Your task to perform on an android device: uninstall "Clock" Image 0: 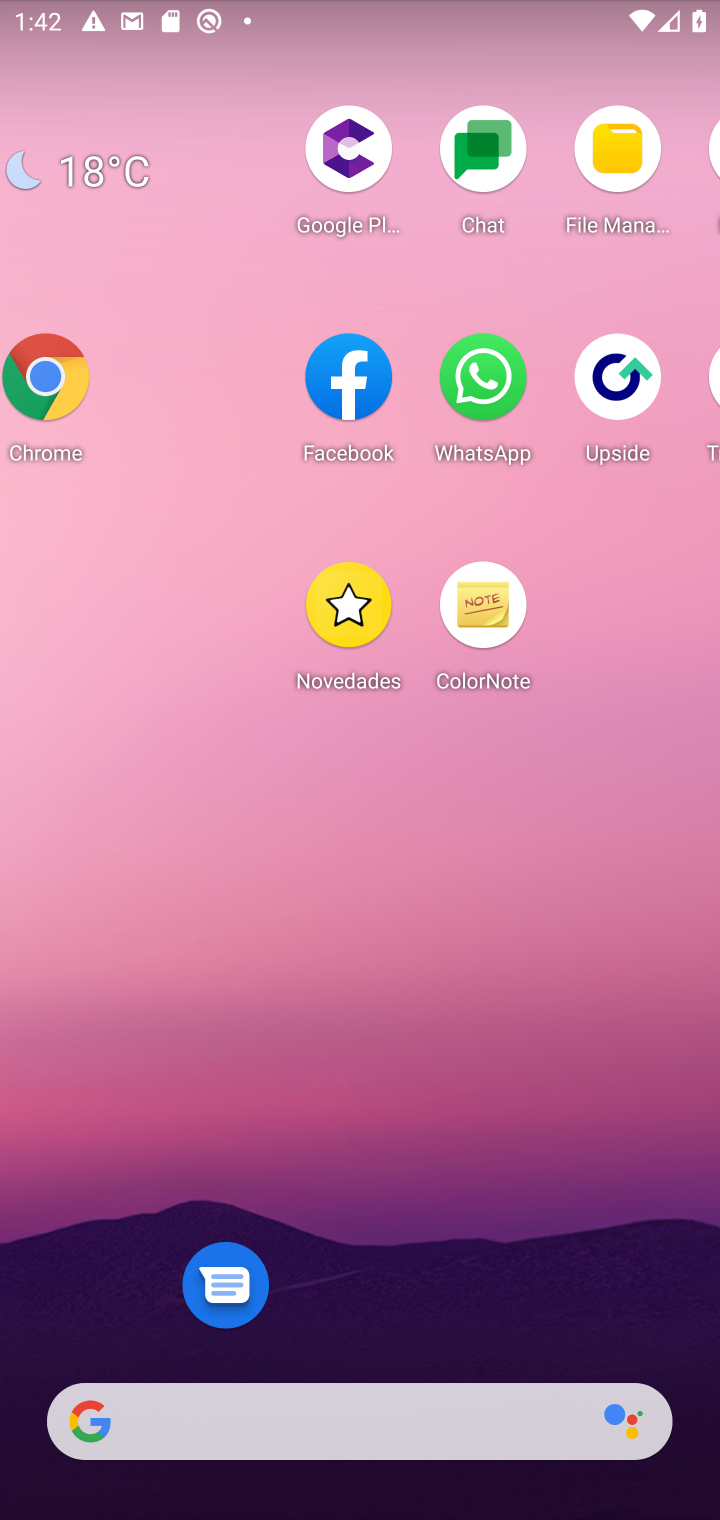
Step 0: press home button
Your task to perform on an android device: uninstall "Clock" Image 1: 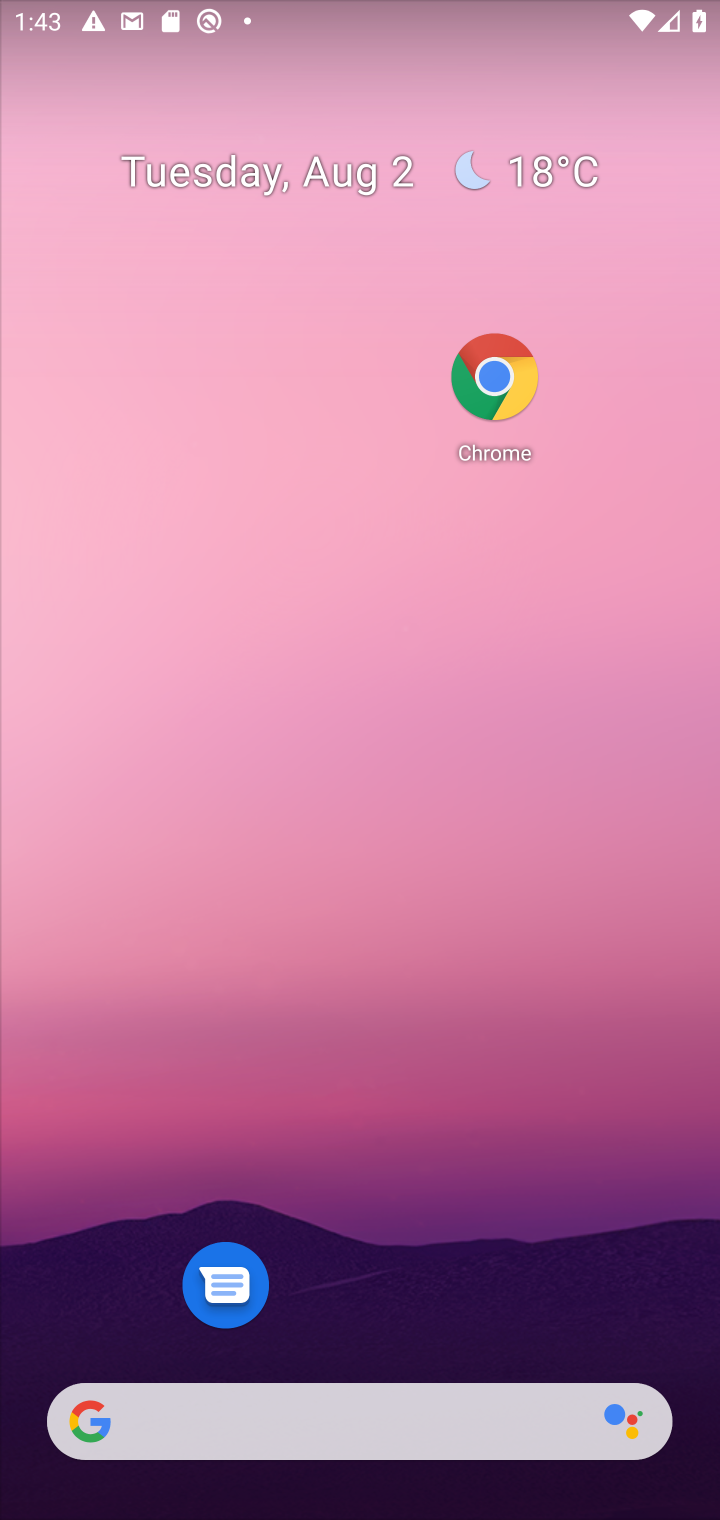
Step 1: drag from (348, 1303) to (345, 267)
Your task to perform on an android device: uninstall "Clock" Image 2: 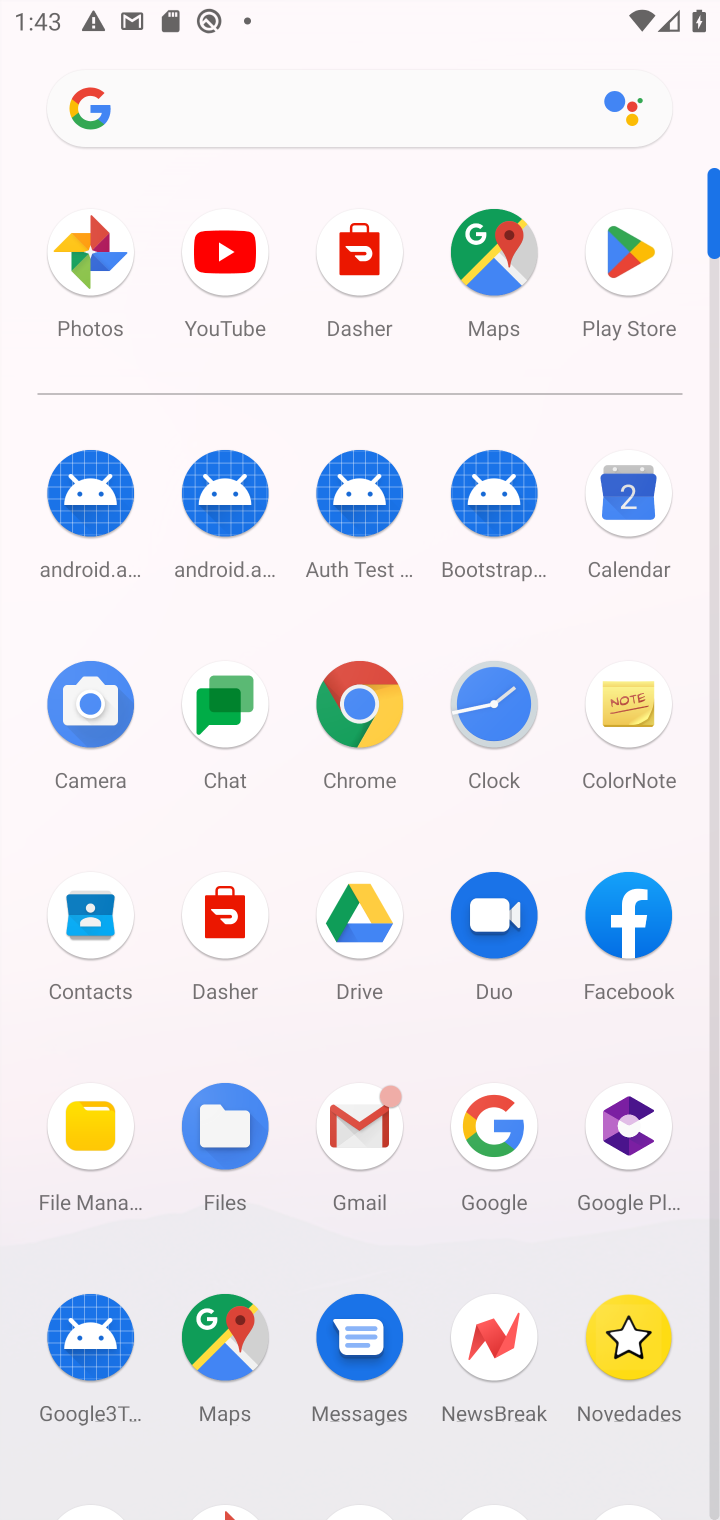
Step 2: click (624, 274)
Your task to perform on an android device: uninstall "Clock" Image 3: 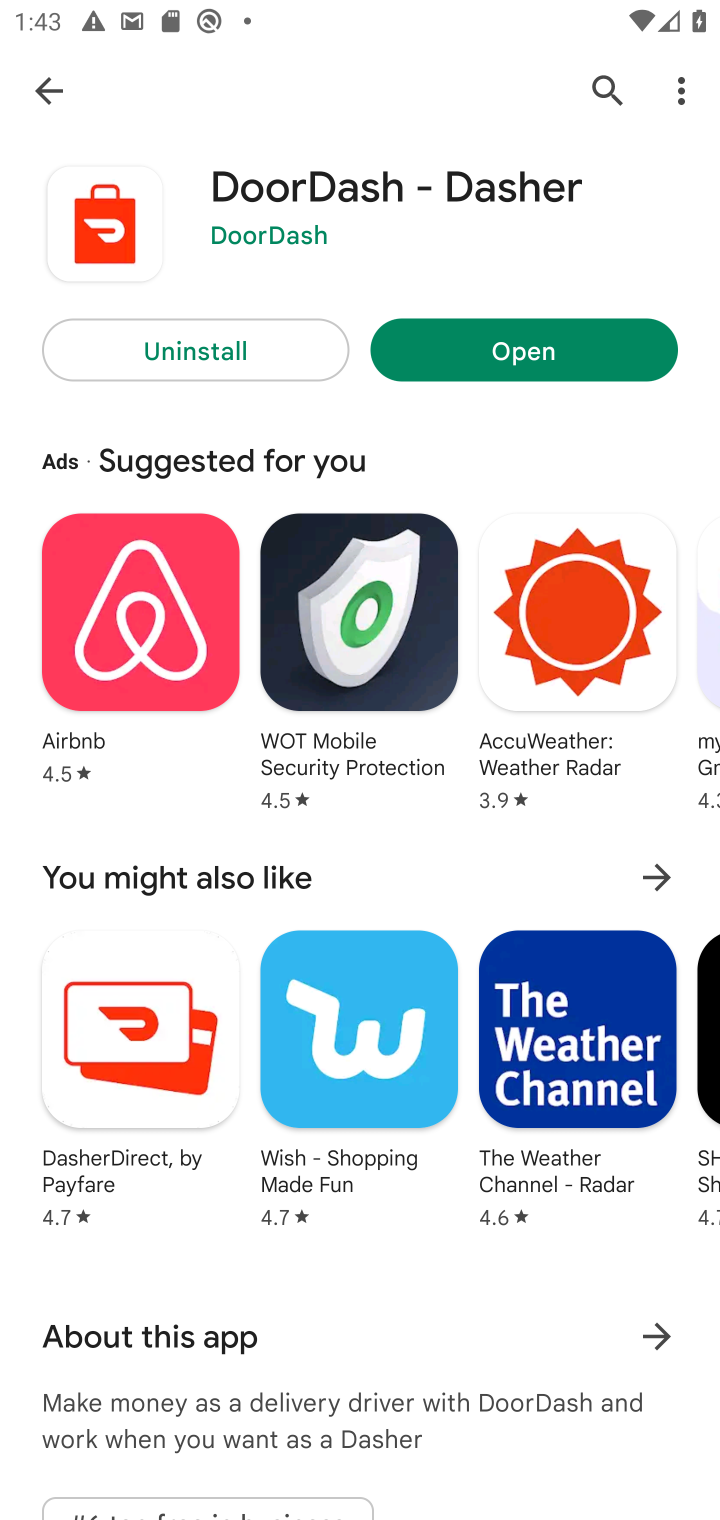
Step 3: click (615, 78)
Your task to perform on an android device: uninstall "Clock" Image 4: 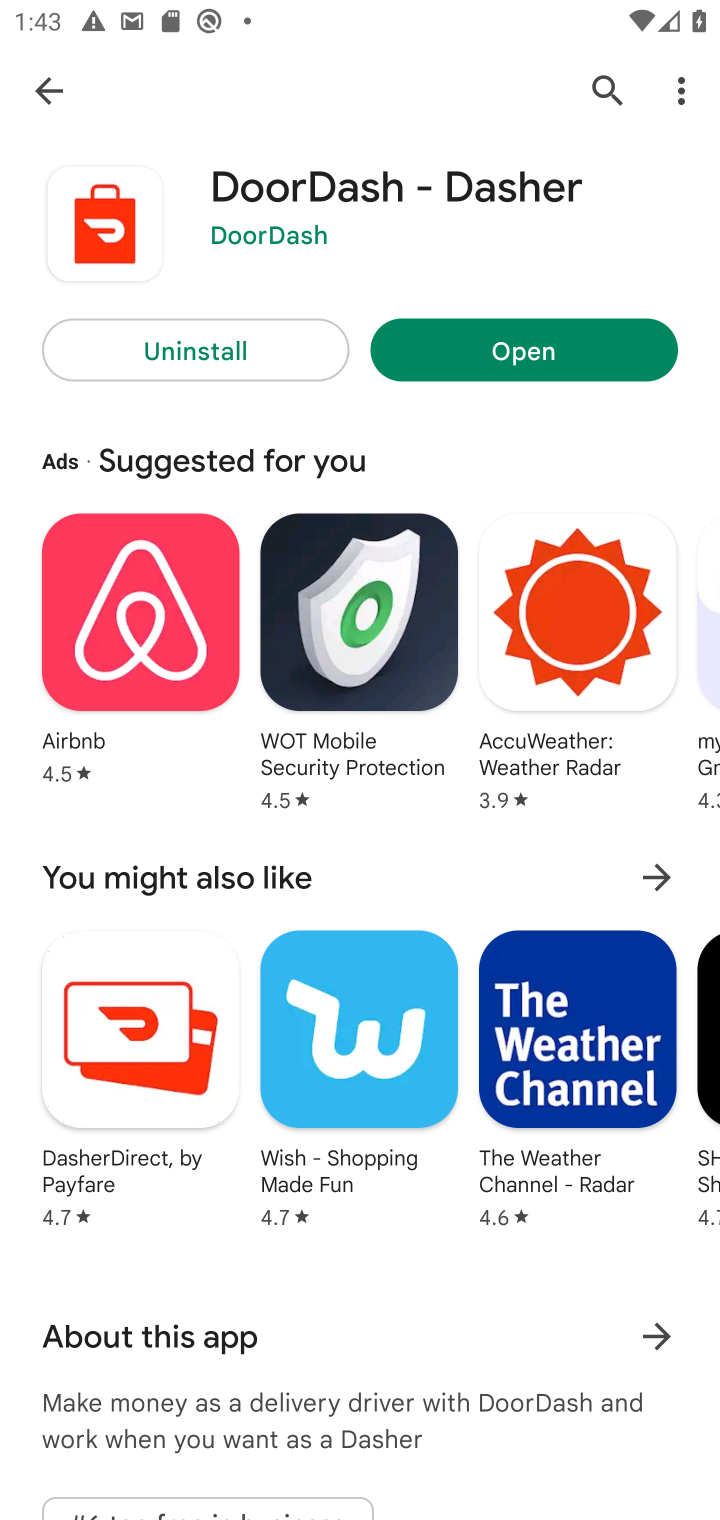
Step 4: click (586, 104)
Your task to perform on an android device: uninstall "Clock" Image 5: 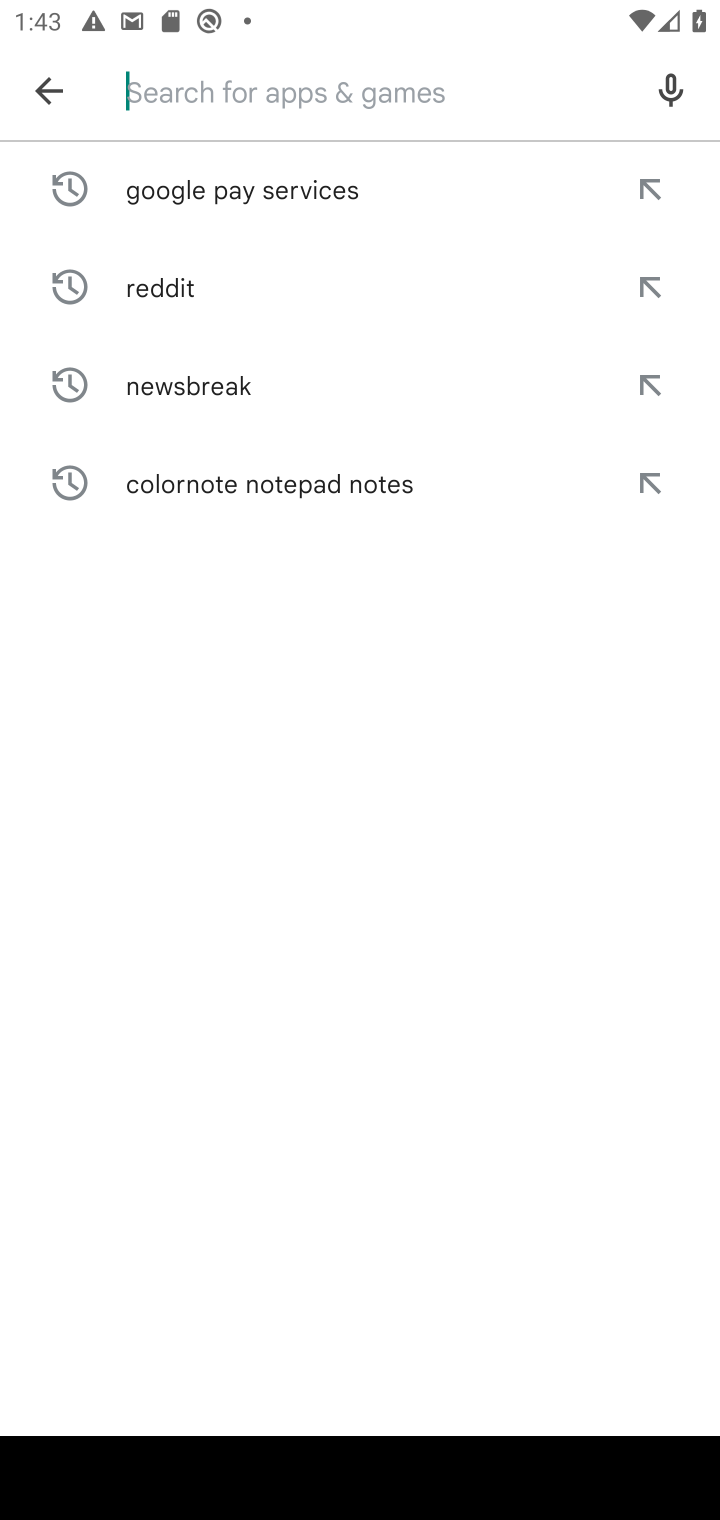
Step 5: type "Clock"
Your task to perform on an android device: uninstall "Clock" Image 6: 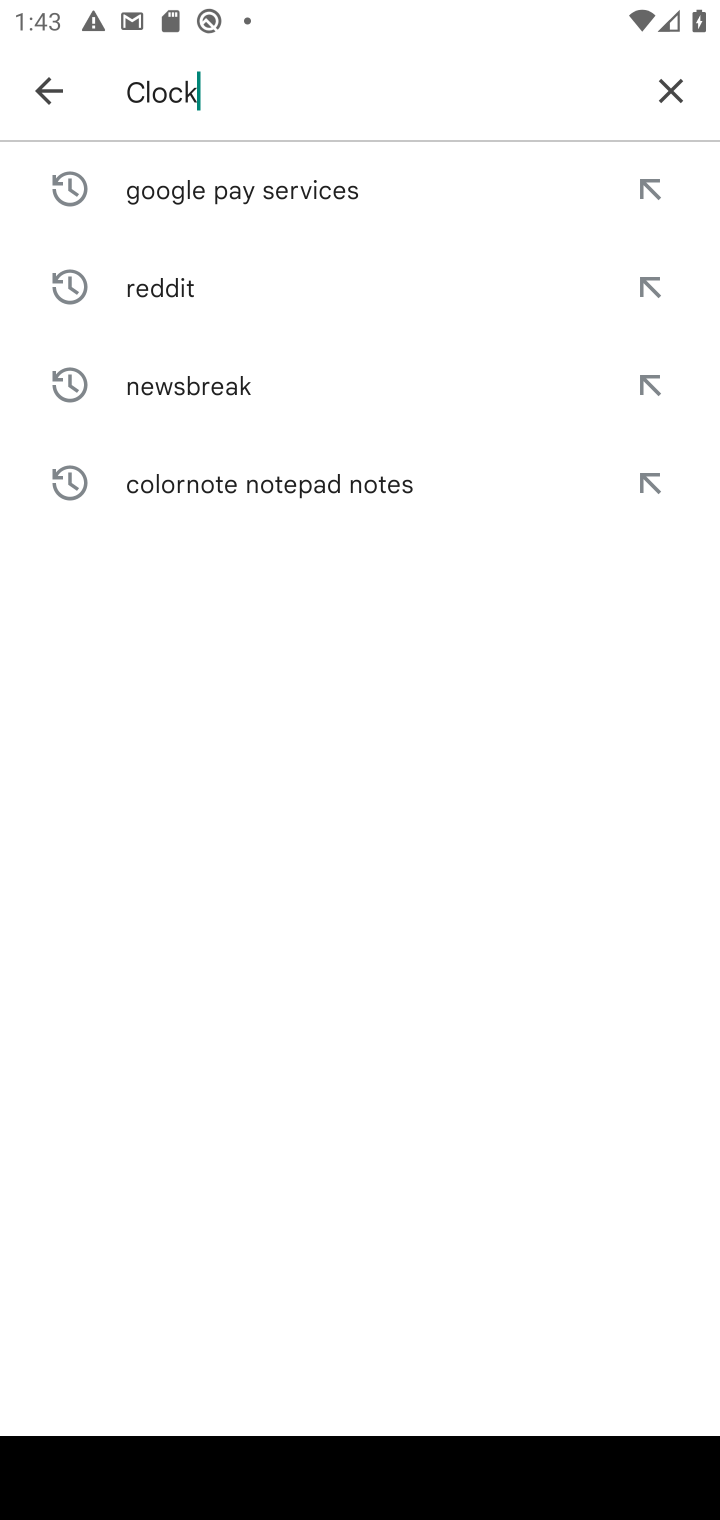
Step 6: type ""
Your task to perform on an android device: uninstall "Clock" Image 7: 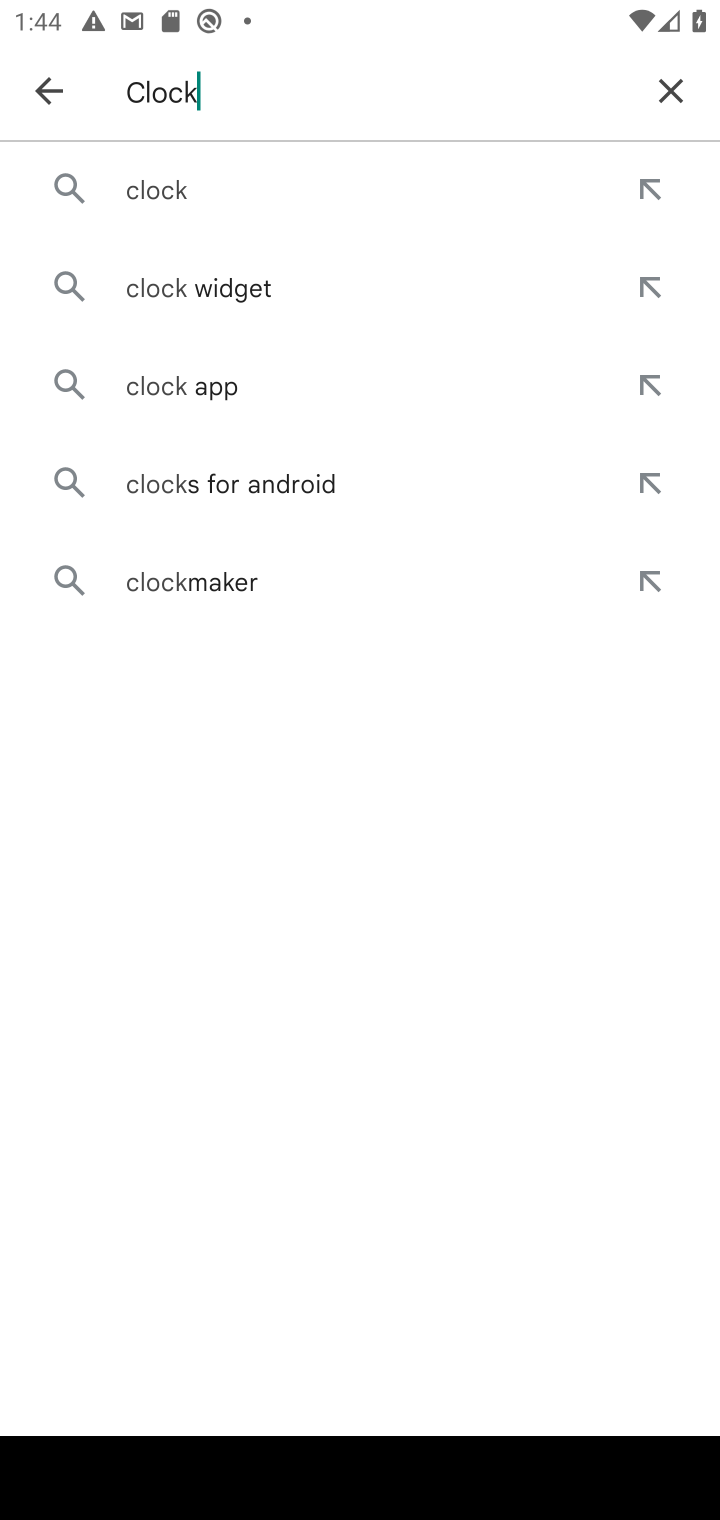
Step 7: click (118, 195)
Your task to perform on an android device: uninstall "Clock" Image 8: 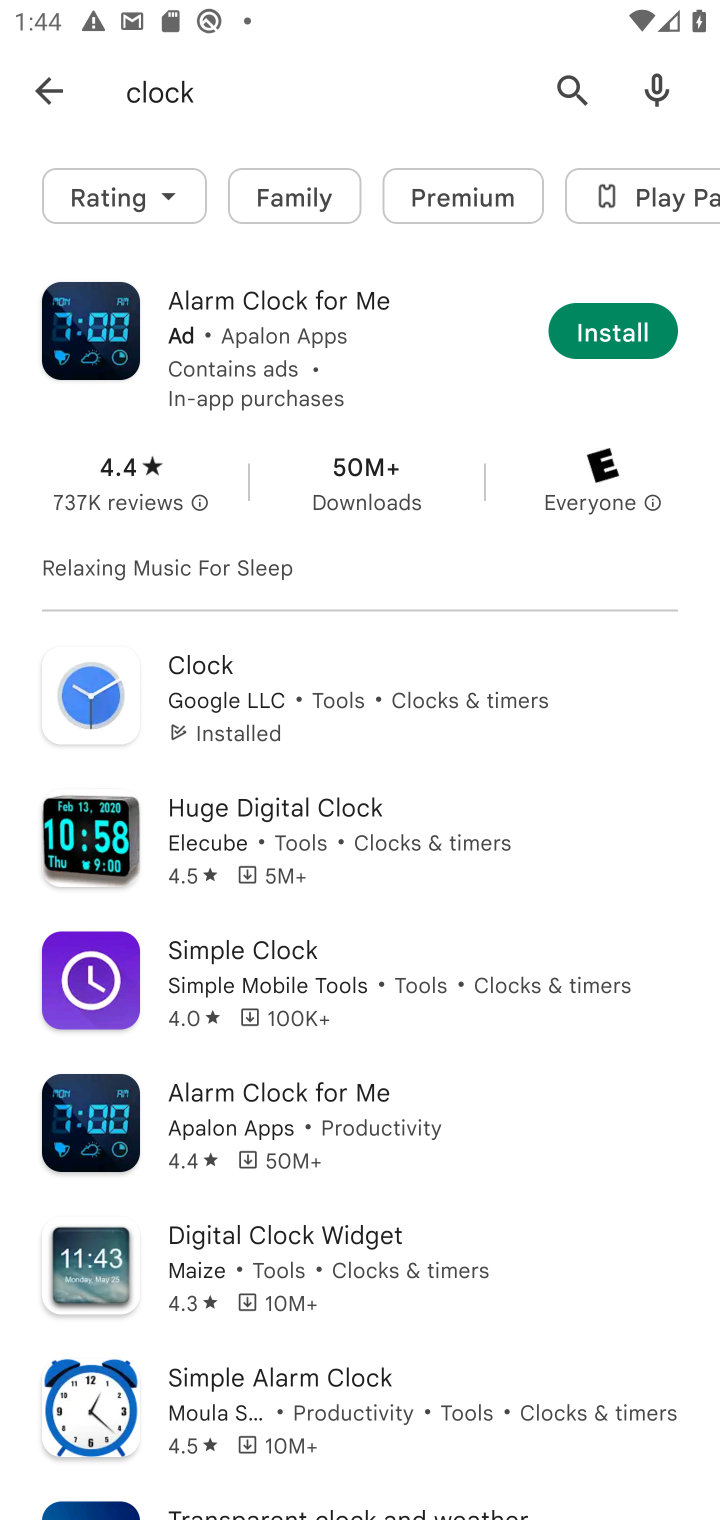
Step 8: click (186, 706)
Your task to perform on an android device: uninstall "Clock" Image 9: 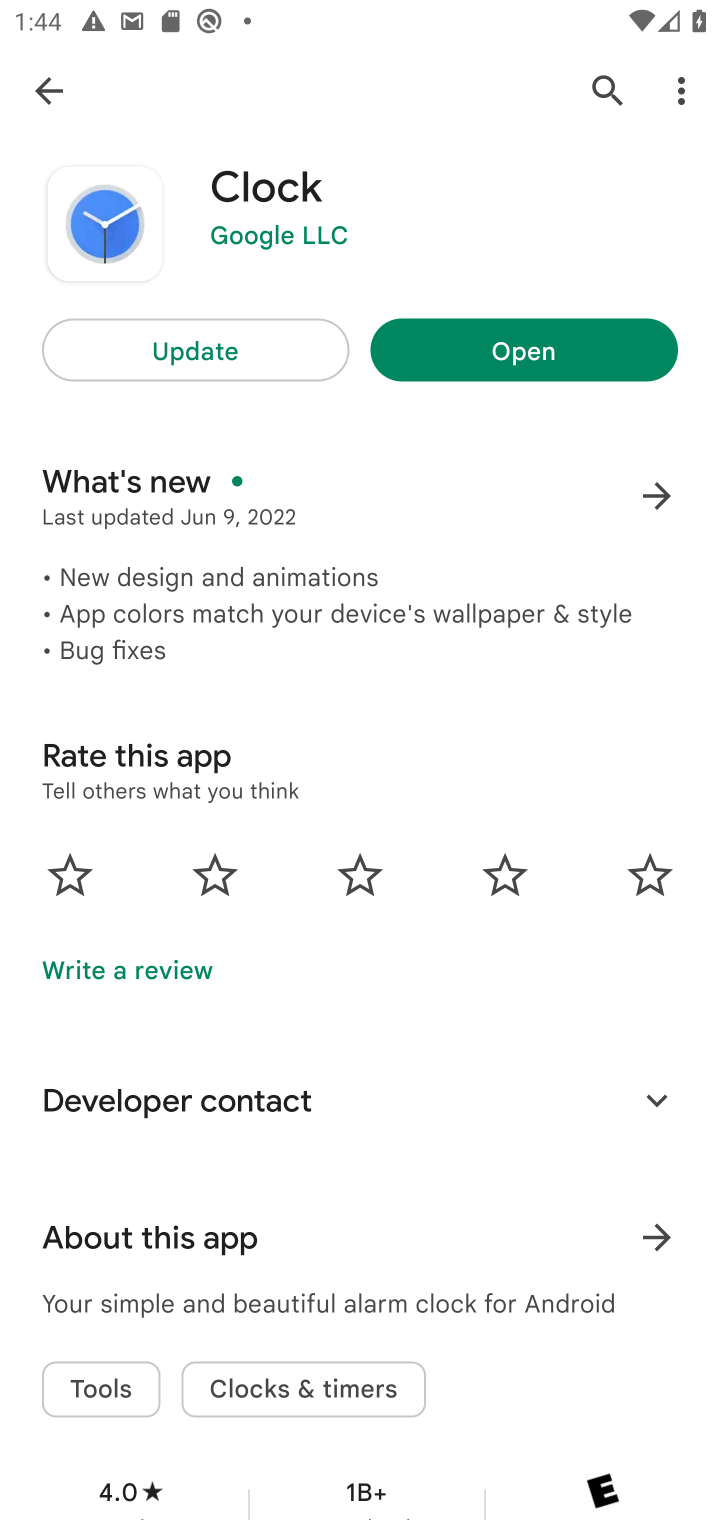
Step 9: click (250, 356)
Your task to perform on an android device: uninstall "Clock" Image 10: 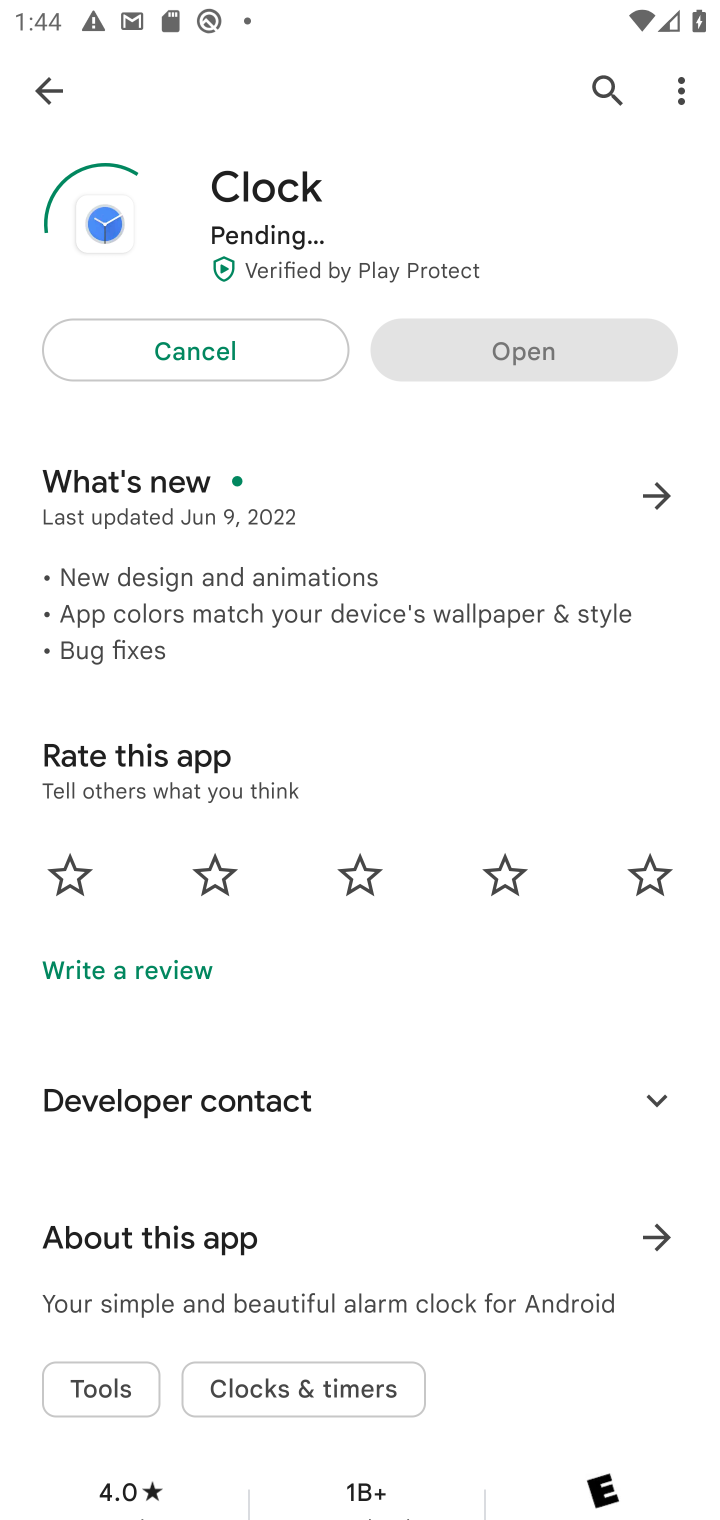
Step 10: click (263, 349)
Your task to perform on an android device: uninstall "Clock" Image 11: 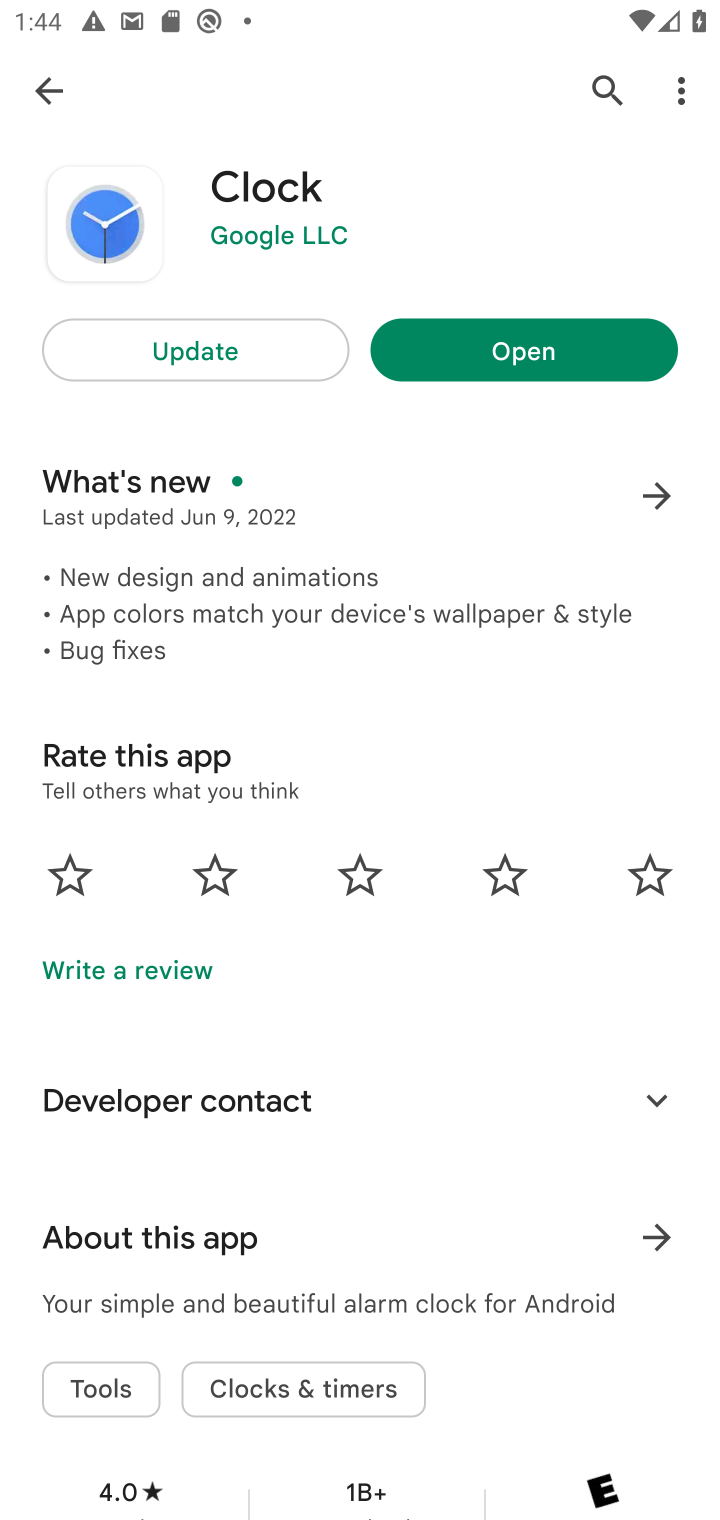
Step 11: task complete